Your task to perform on an android device: Search for a new desk on IKEA Image 0: 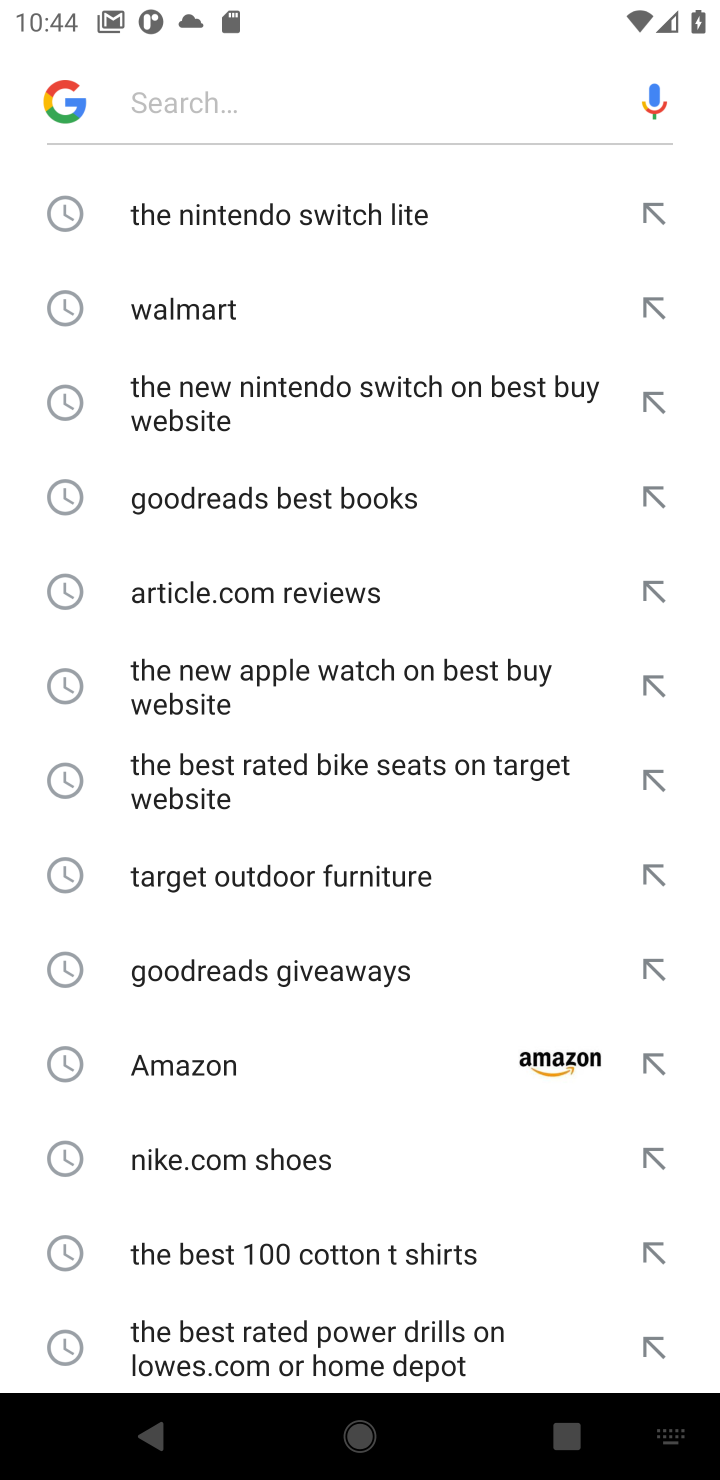
Step 0: click (383, 72)
Your task to perform on an android device: Search for a new desk on IKEA Image 1: 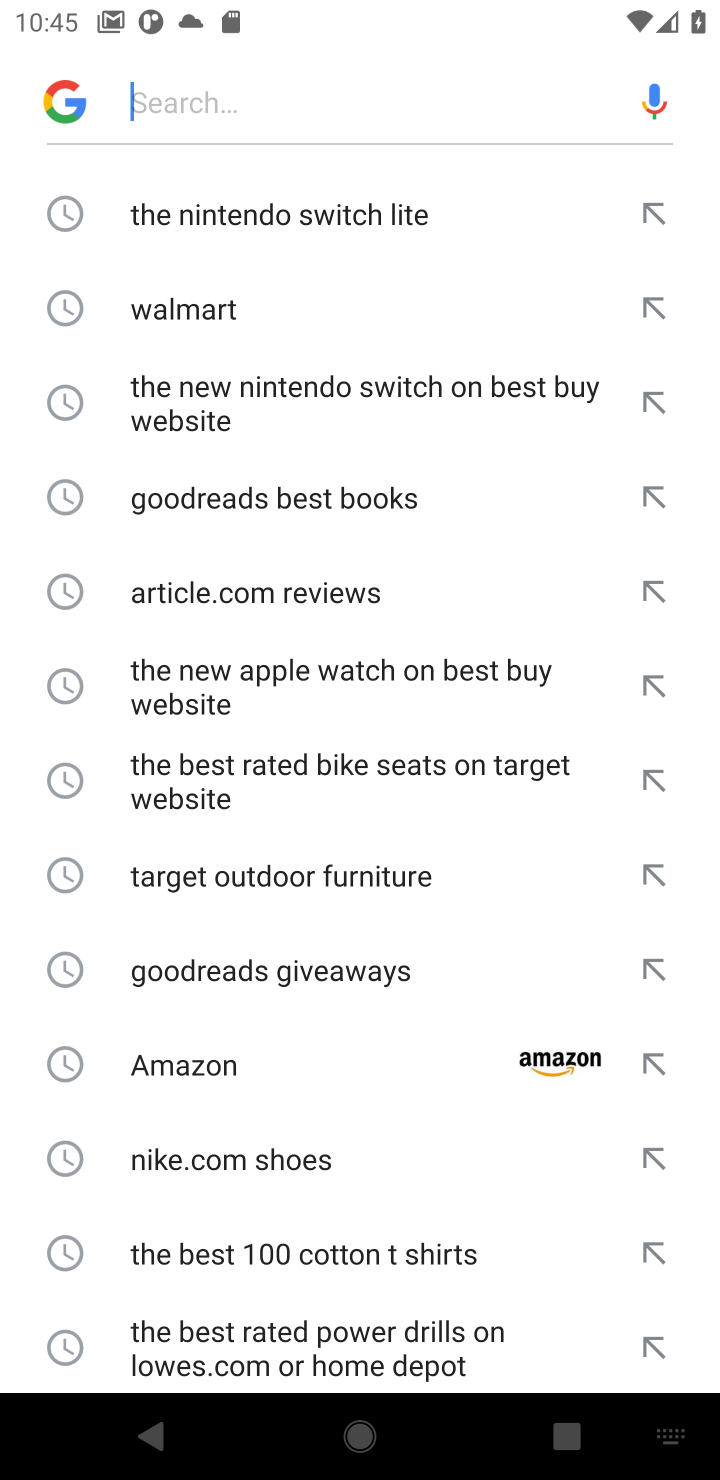
Step 1: type "a new desk on IKEA "
Your task to perform on an android device: Search for a new desk on IKEA Image 2: 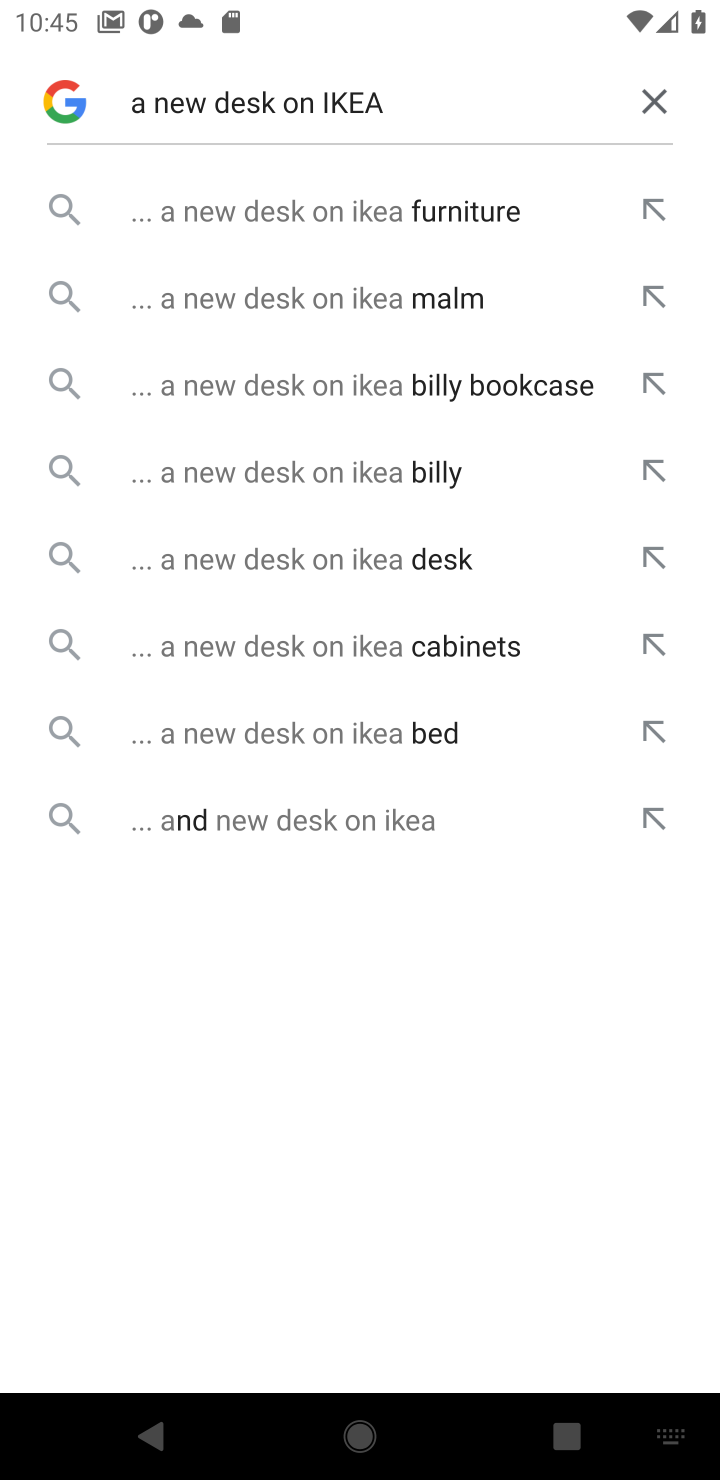
Step 2: click (339, 205)
Your task to perform on an android device: Search for a new desk on IKEA Image 3: 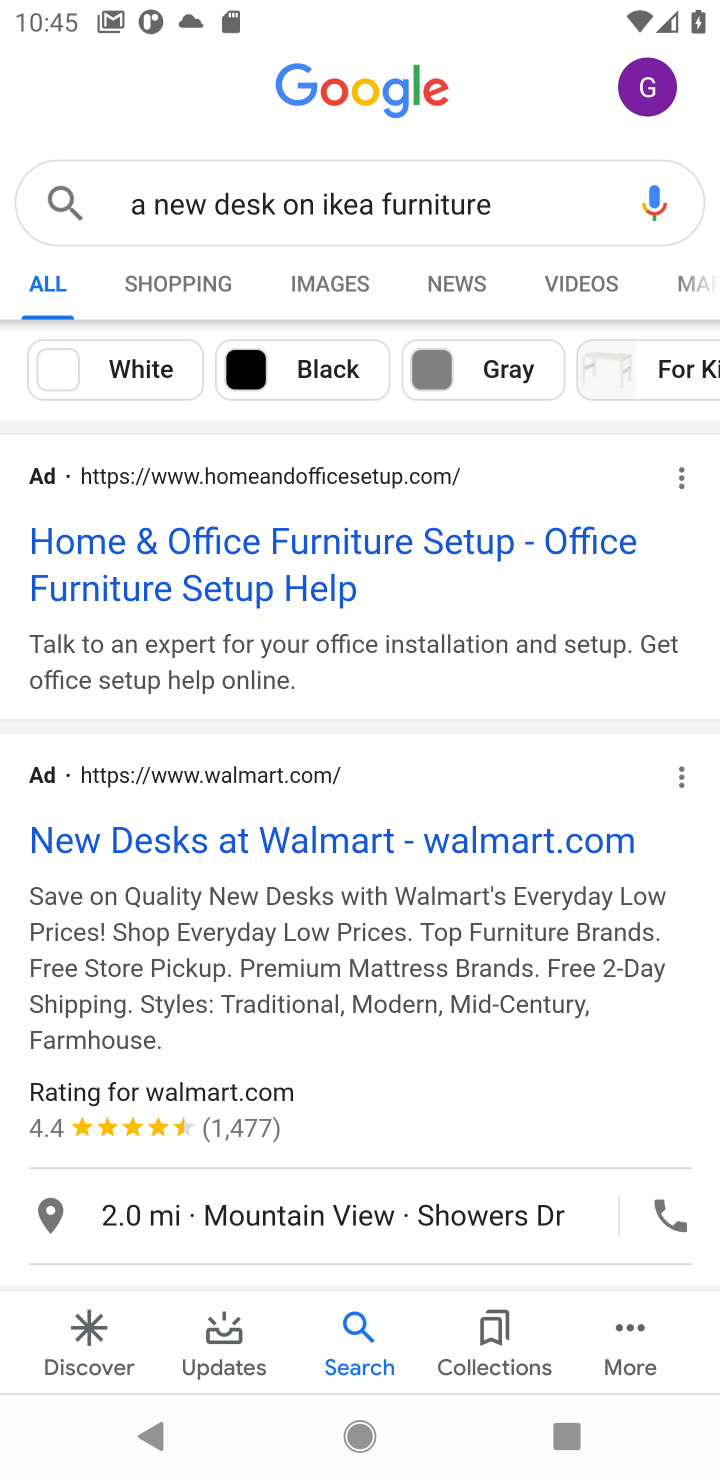
Step 3: drag from (329, 1131) to (383, 466)
Your task to perform on an android device: Search for a new desk on IKEA Image 4: 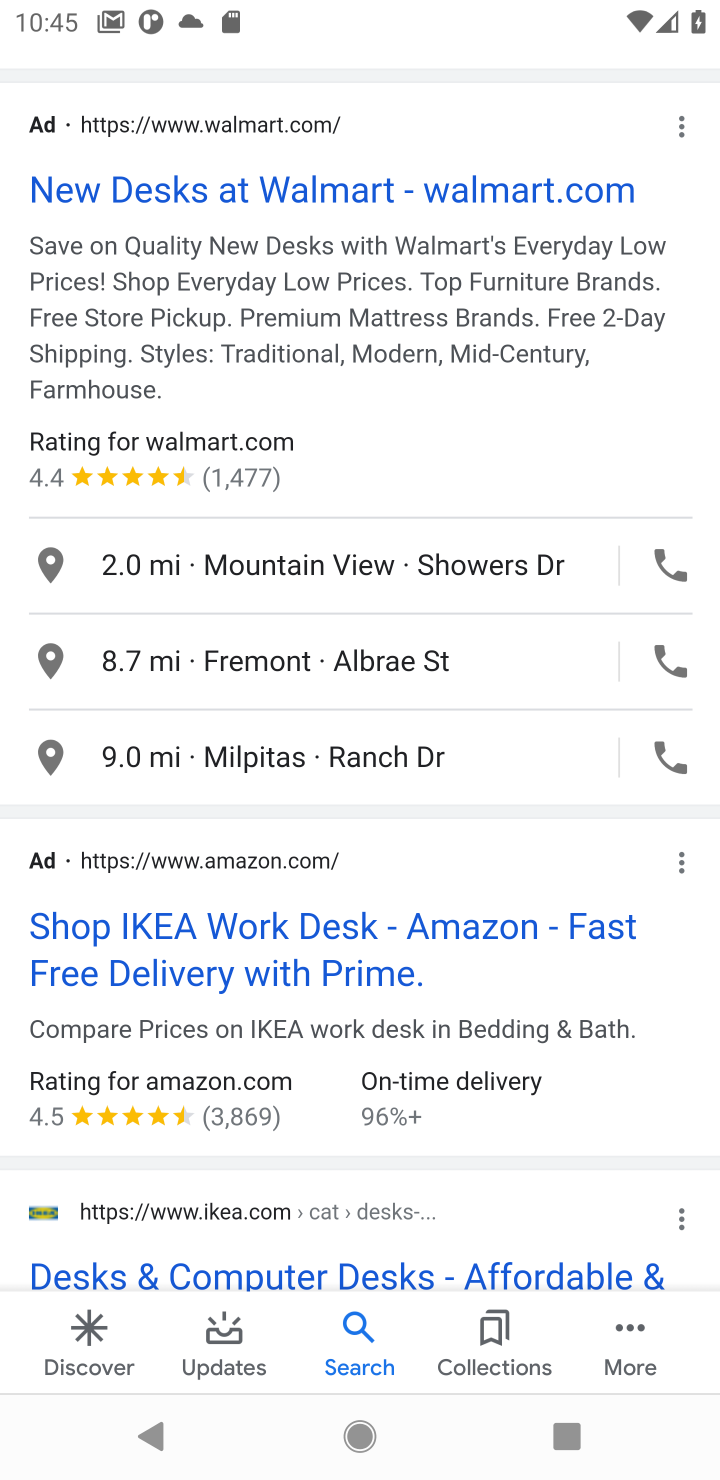
Step 4: click (185, 977)
Your task to perform on an android device: Search for a new desk on IKEA Image 5: 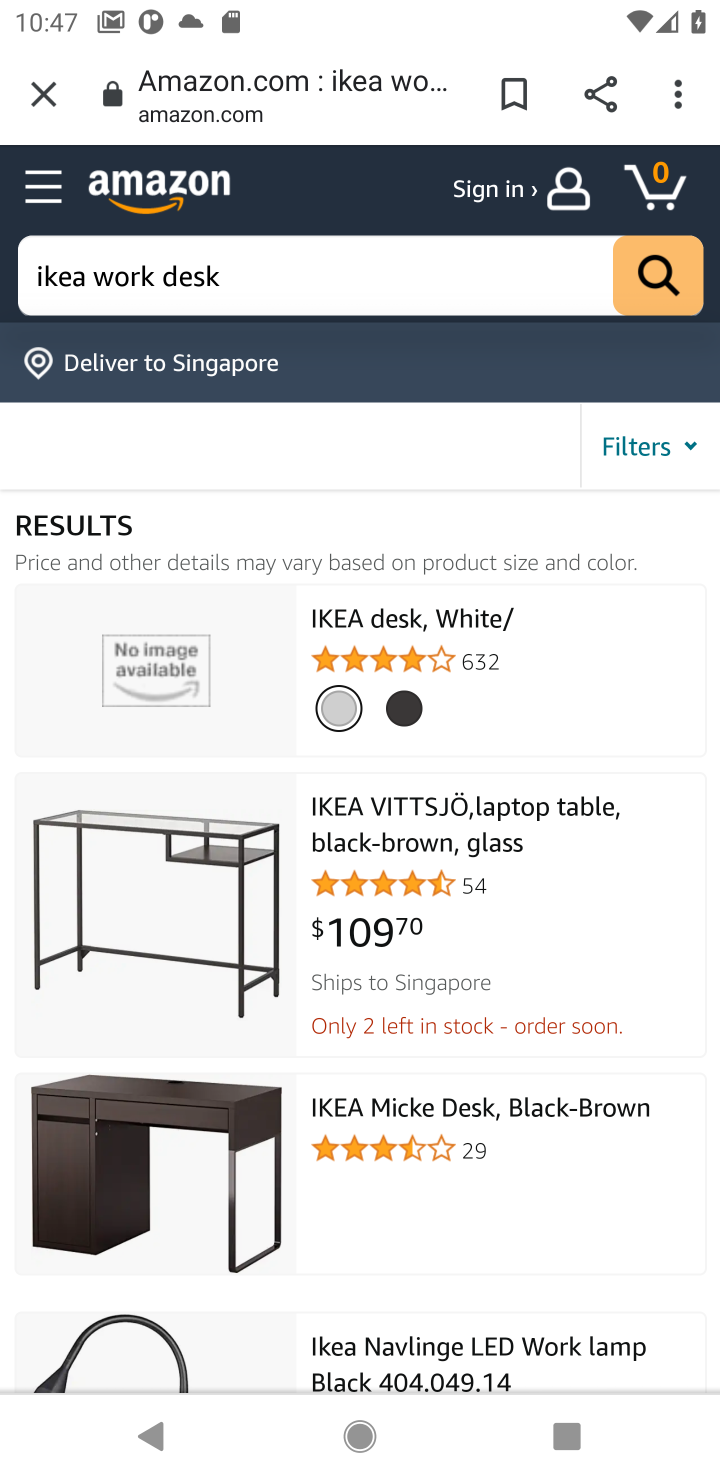
Step 5: task complete